Your task to perform on an android device: find which apps use the phone's location Image 0: 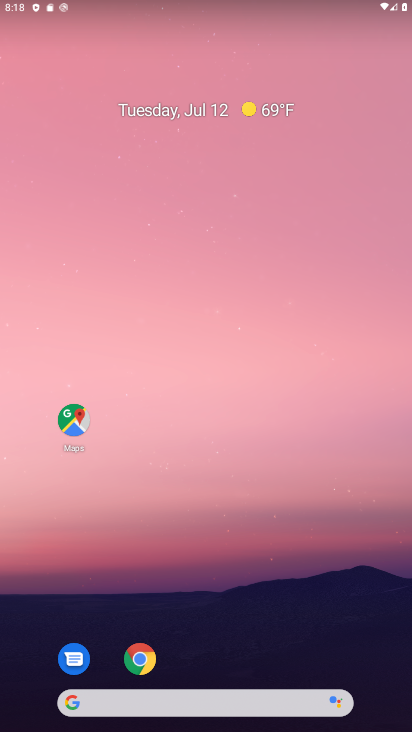
Step 0: drag from (218, 726) to (185, 273)
Your task to perform on an android device: find which apps use the phone's location Image 1: 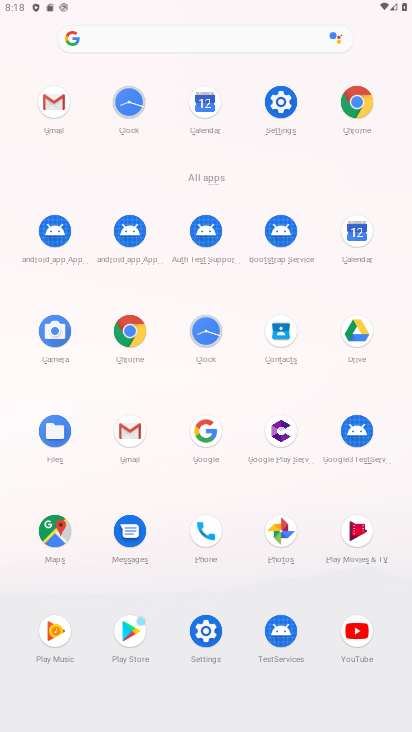
Step 1: click (277, 99)
Your task to perform on an android device: find which apps use the phone's location Image 2: 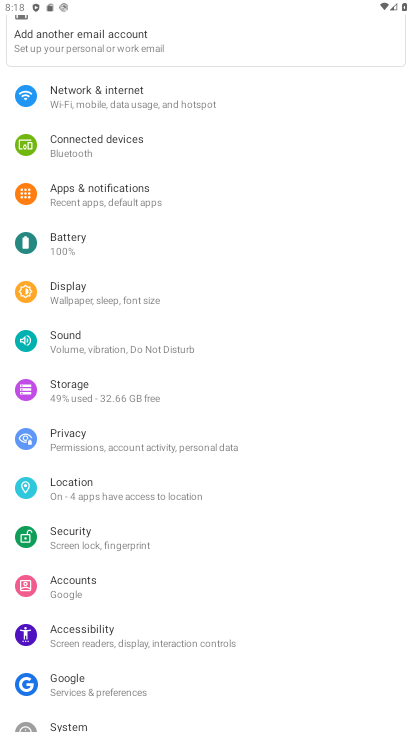
Step 2: click (75, 485)
Your task to perform on an android device: find which apps use the phone's location Image 3: 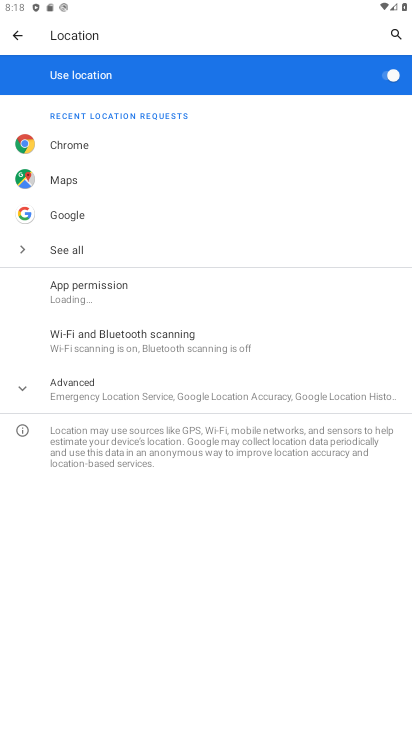
Step 3: click (79, 292)
Your task to perform on an android device: find which apps use the phone's location Image 4: 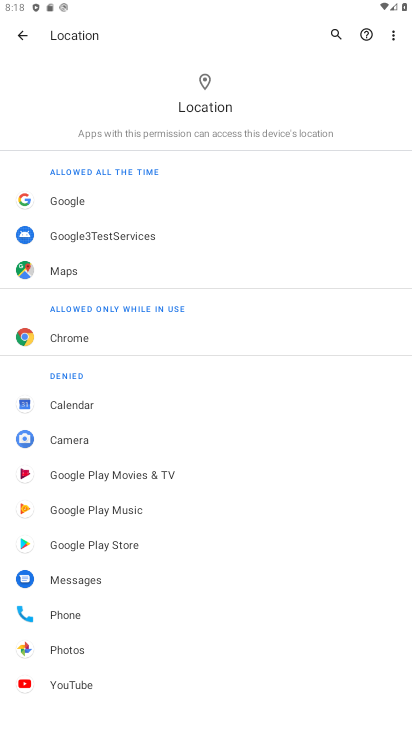
Step 4: task complete